Your task to perform on an android device: set the timer Image 0: 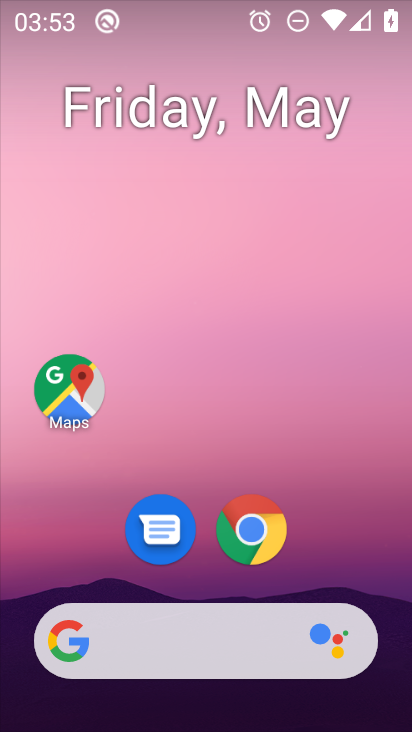
Step 0: drag from (393, 621) to (323, 153)
Your task to perform on an android device: set the timer Image 1: 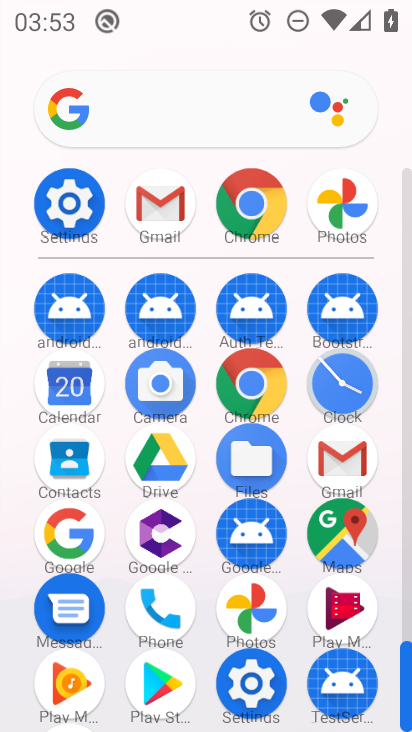
Step 1: click (344, 395)
Your task to perform on an android device: set the timer Image 2: 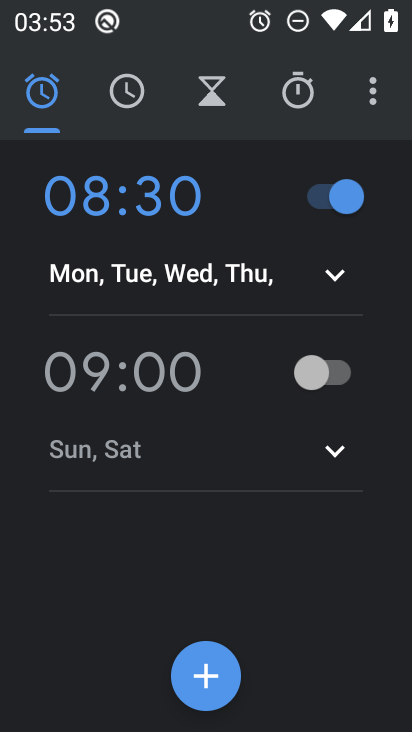
Step 2: click (291, 100)
Your task to perform on an android device: set the timer Image 3: 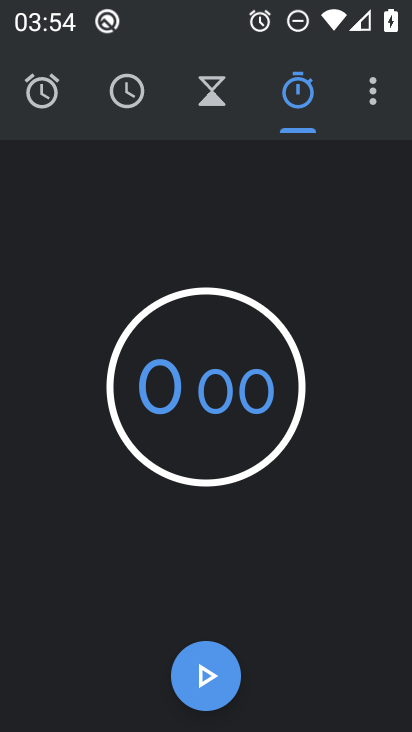
Step 3: click (202, 687)
Your task to perform on an android device: set the timer Image 4: 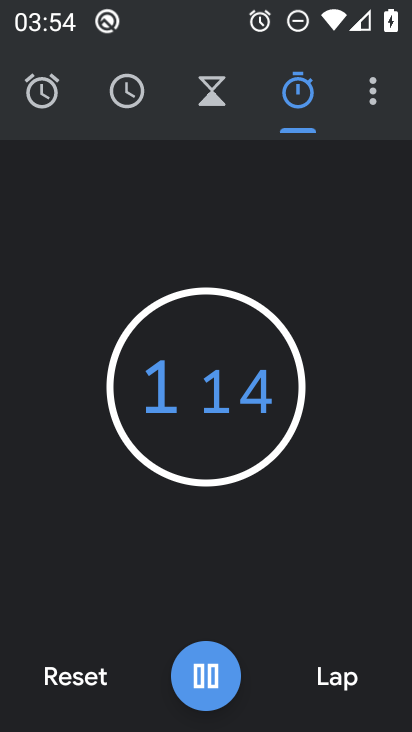
Step 4: task complete